Your task to perform on an android device: check the backup settings in the google photos Image 0: 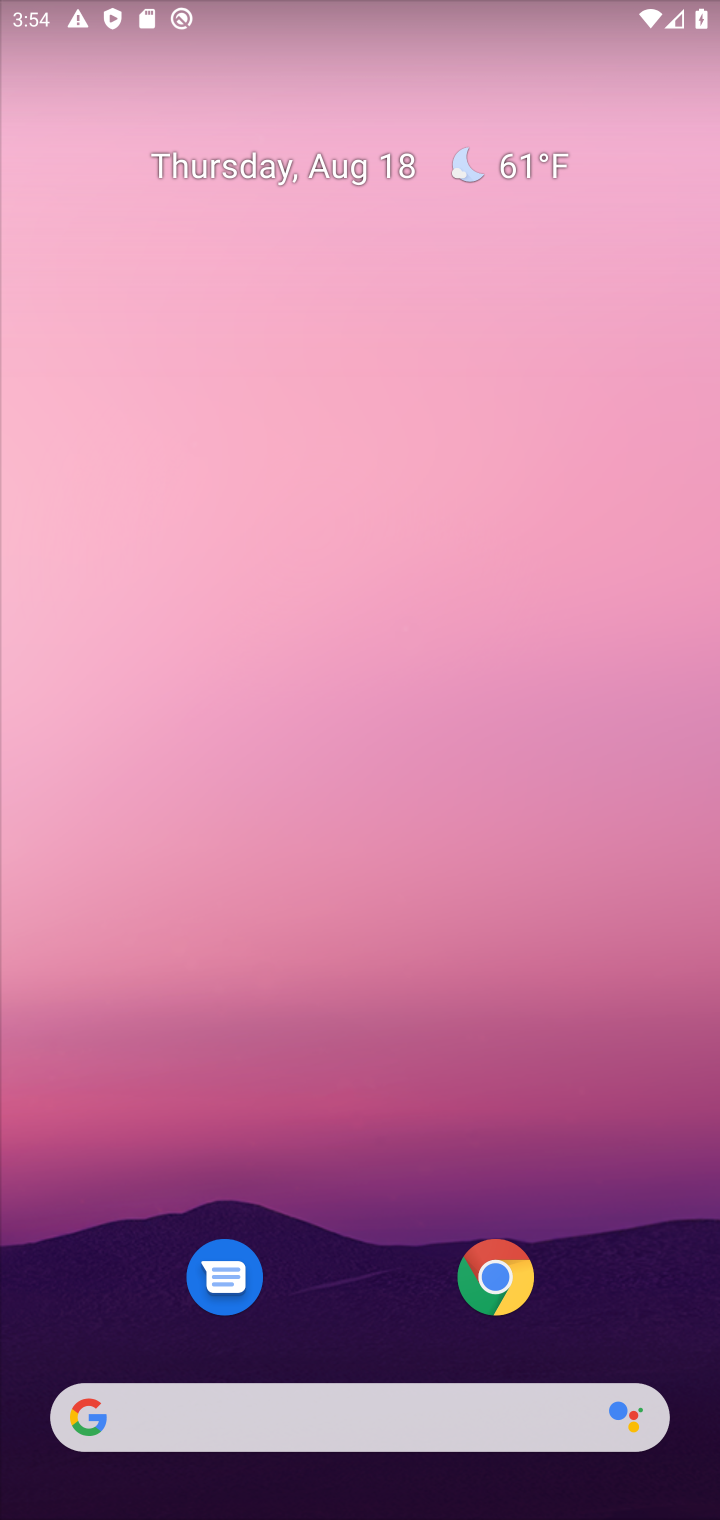
Step 0: drag from (344, 1077) to (516, 4)
Your task to perform on an android device: check the backup settings in the google photos Image 1: 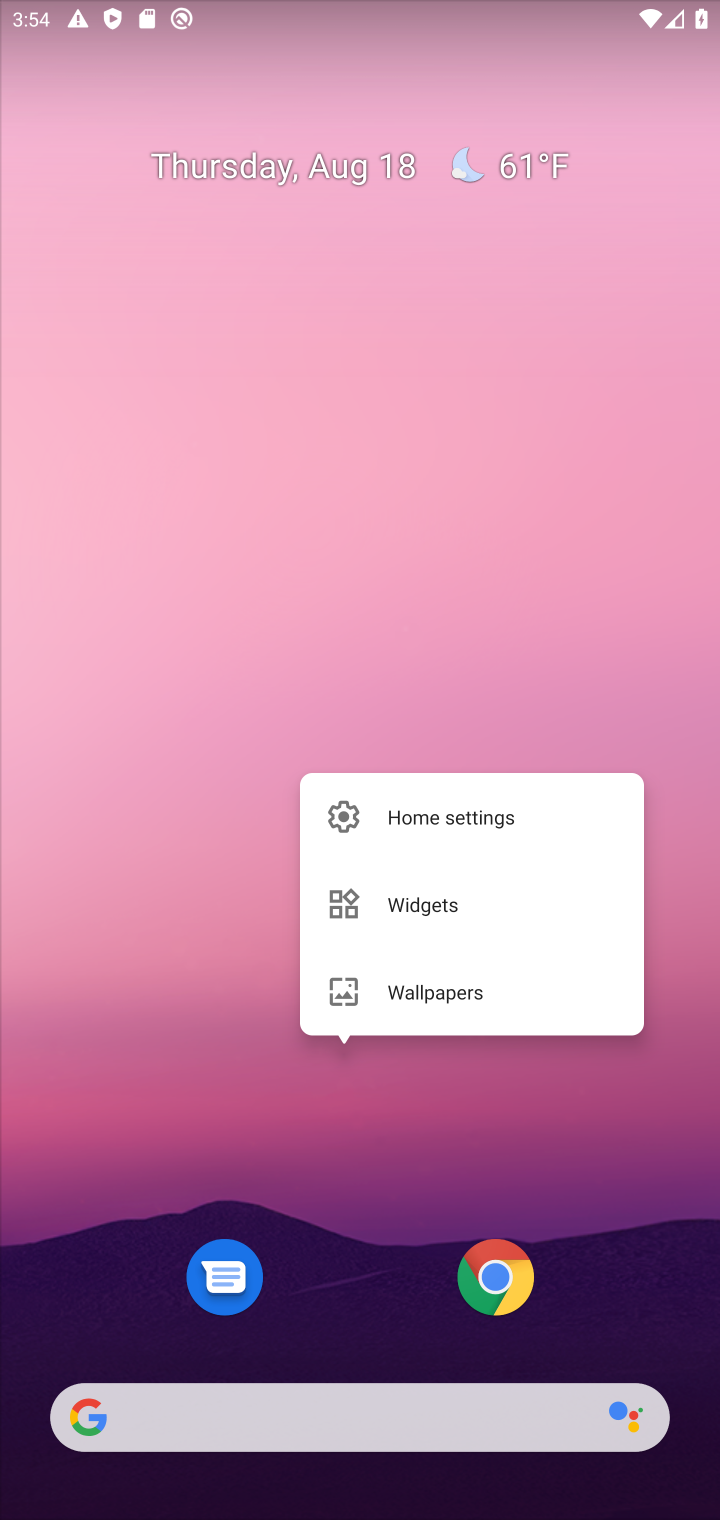
Step 1: task complete